Your task to perform on an android device: change the clock display to analog Image 0: 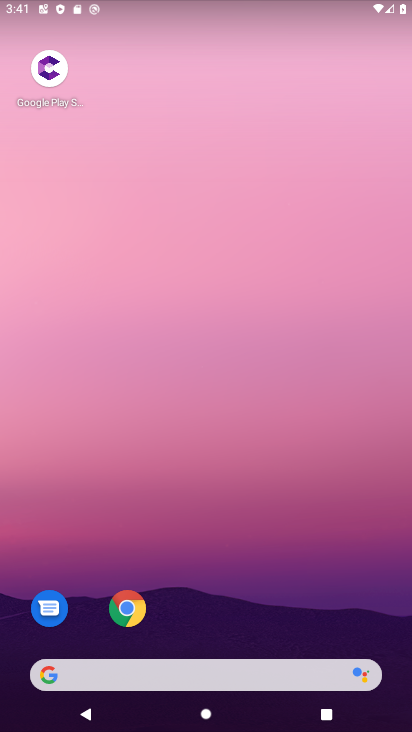
Step 0: drag from (233, 576) to (145, 131)
Your task to perform on an android device: change the clock display to analog Image 1: 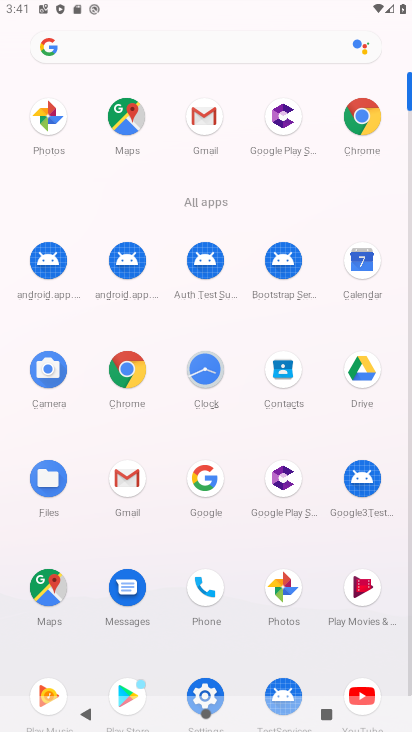
Step 1: click (204, 379)
Your task to perform on an android device: change the clock display to analog Image 2: 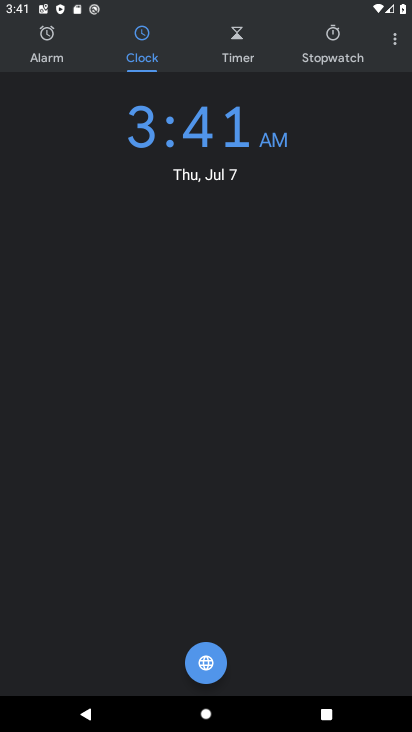
Step 2: click (397, 44)
Your task to perform on an android device: change the clock display to analog Image 3: 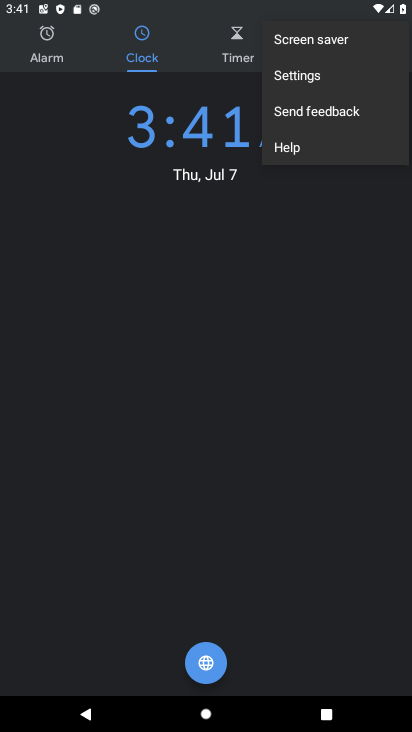
Step 3: click (327, 74)
Your task to perform on an android device: change the clock display to analog Image 4: 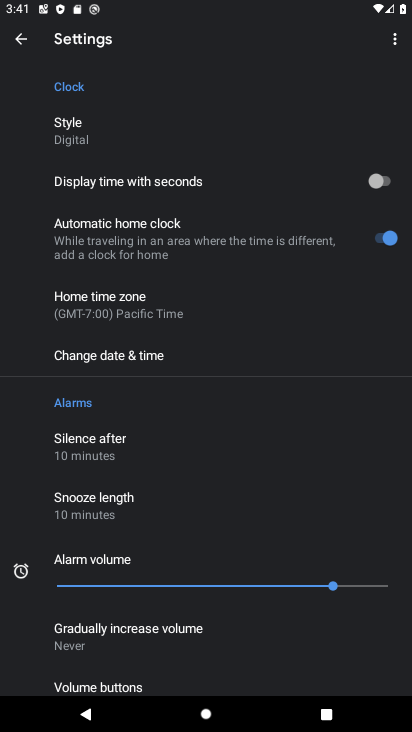
Step 4: click (207, 128)
Your task to perform on an android device: change the clock display to analog Image 5: 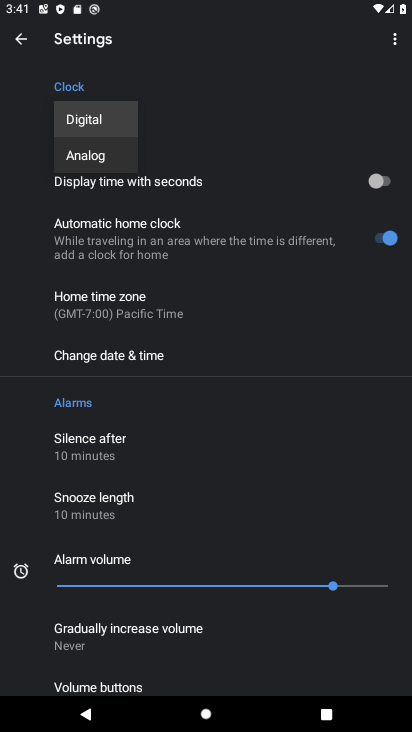
Step 5: click (108, 155)
Your task to perform on an android device: change the clock display to analog Image 6: 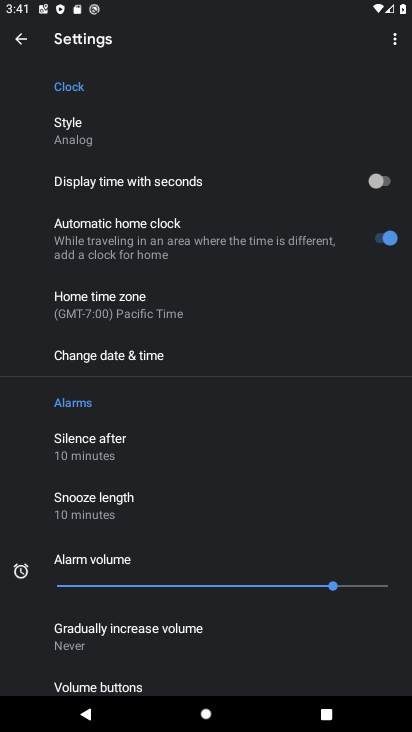
Step 6: task complete